Your task to perform on an android device: add a contact Image 0: 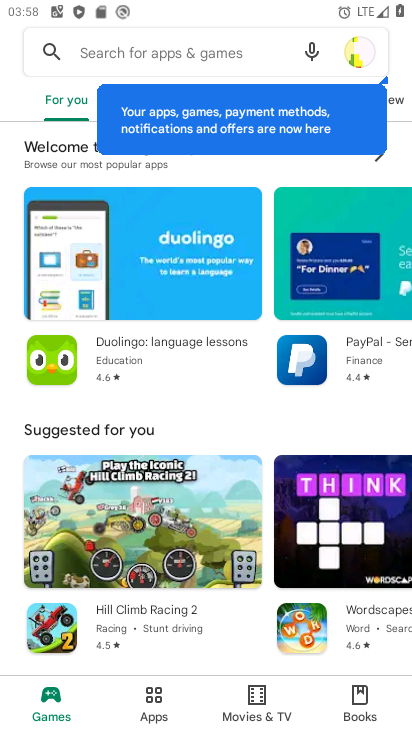
Step 0: press home button
Your task to perform on an android device: add a contact Image 1: 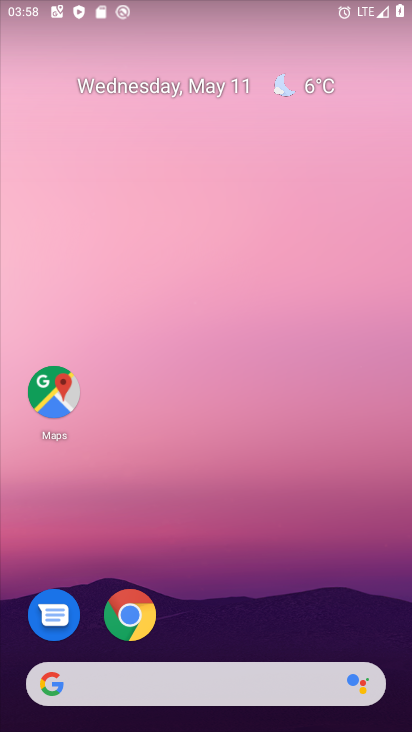
Step 1: drag from (240, 584) to (249, 152)
Your task to perform on an android device: add a contact Image 2: 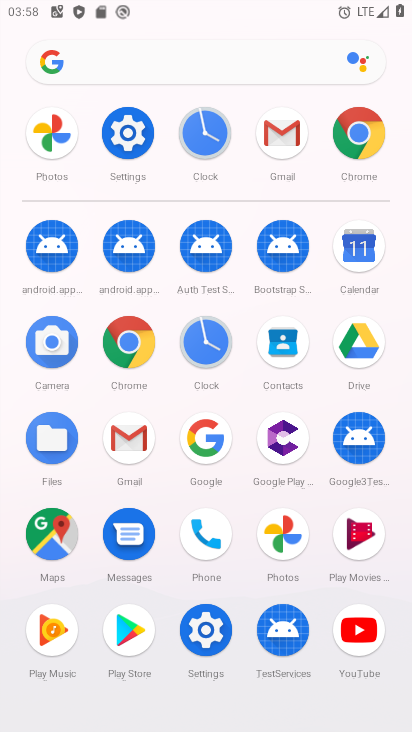
Step 2: click (285, 338)
Your task to perform on an android device: add a contact Image 3: 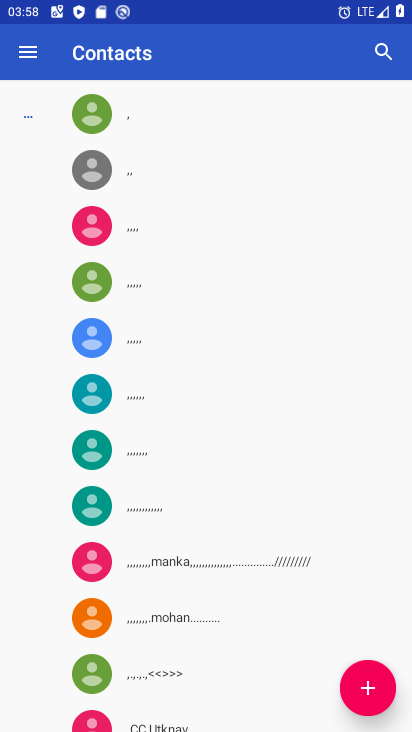
Step 3: click (368, 689)
Your task to perform on an android device: add a contact Image 4: 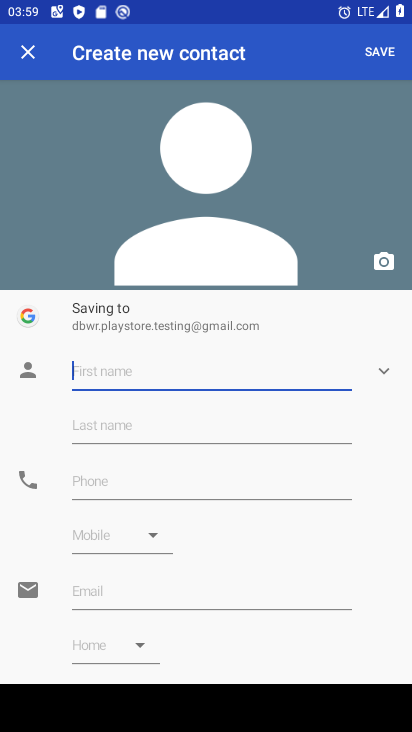
Step 4: type "hitman"
Your task to perform on an android device: add a contact Image 5: 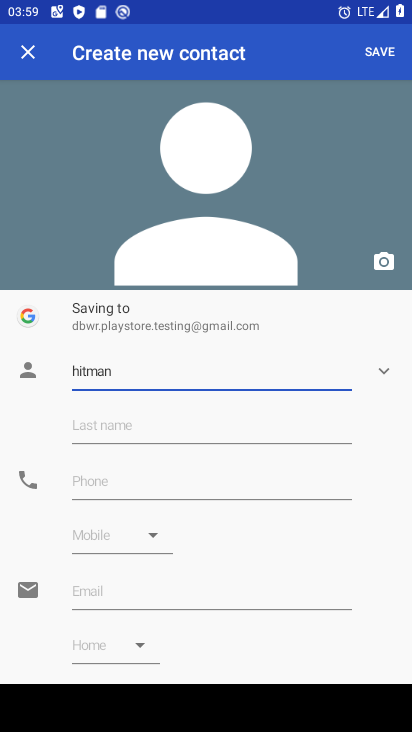
Step 5: click (376, 53)
Your task to perform on an android device: add a contact Image 6: 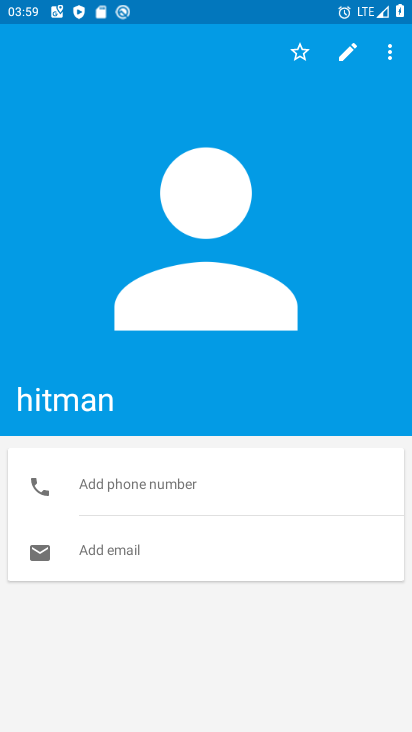
Step 6: task complete